Your task to perform on an android device: Show me popular videos on Youtube Image 0: 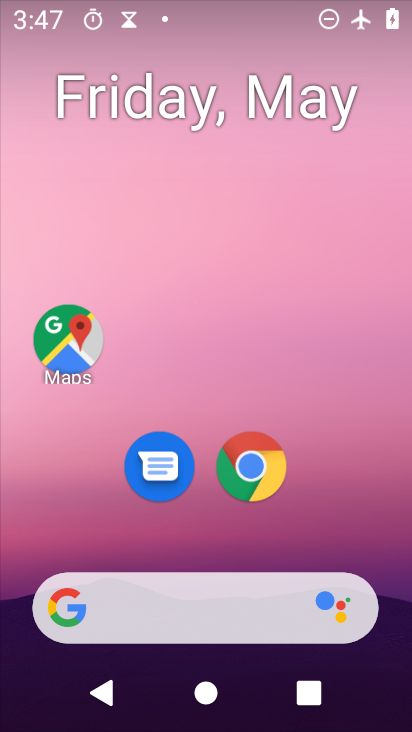
Step 0: drag from (348, 537) to (305, 14)
Your task to perform on an android device: Show me popular videos on Youtube Image 1: 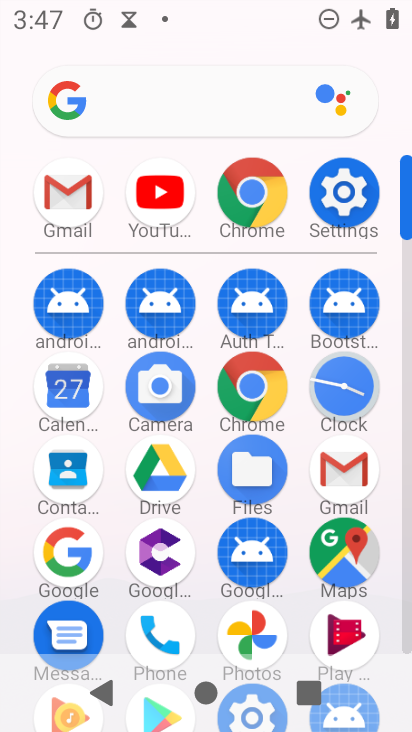
Step 1: click (147, 200)
Your task to perform on an android device: Show me popular videos on Youtube Image 2: 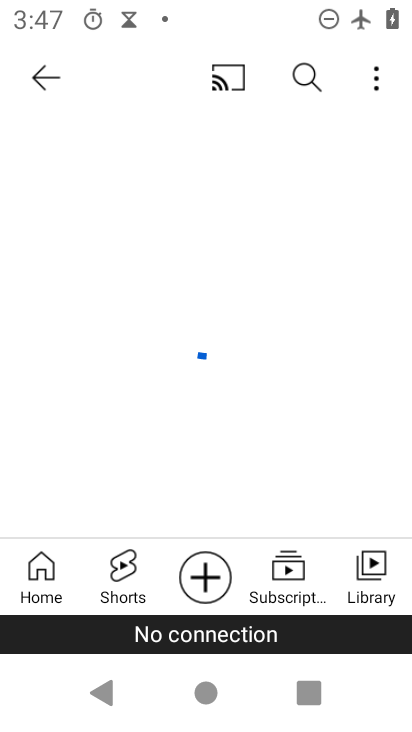
Step 2: click (305, 74)
Your task to perform on an android device: Show me popular videos on Youtube Image 3: 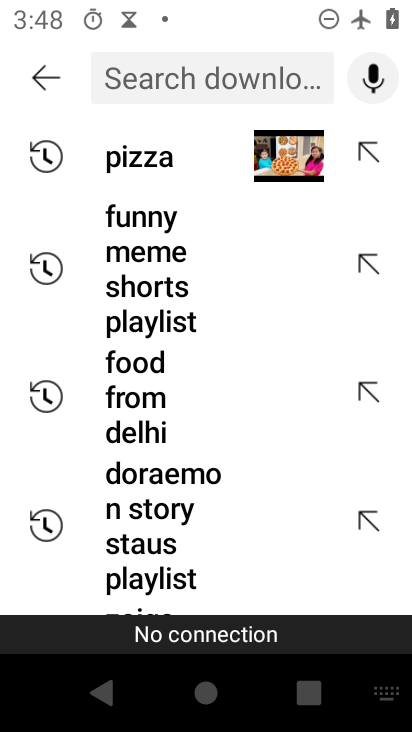
Step 3: type "popular vidoes"
Your task to perform on an android device: Show me popular videos on Youtube Image 4: 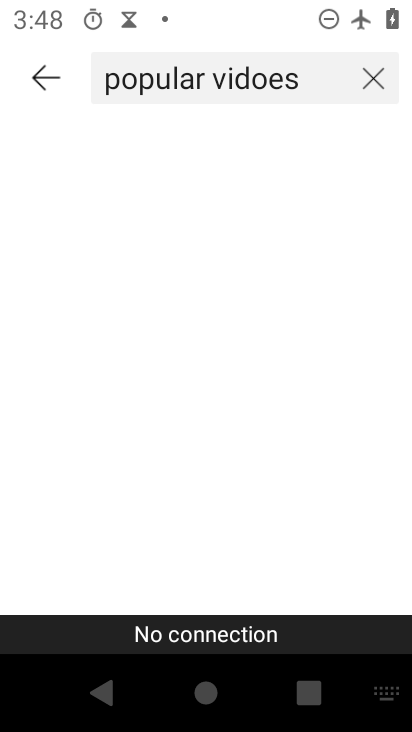
Step 4: press enter
Your task to perform on an android device: Show me popular videos on Youtube Image 5: 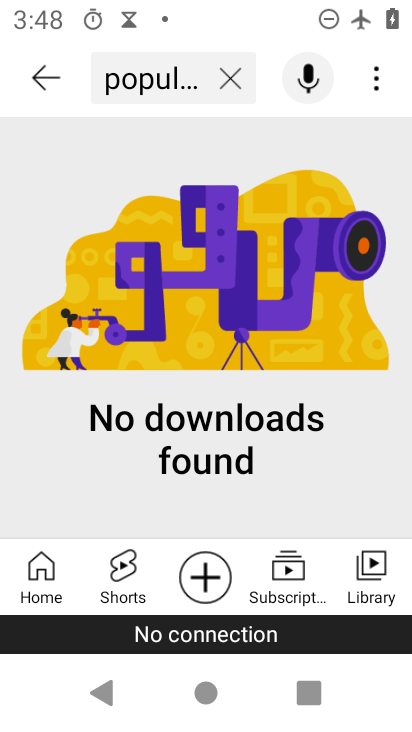
Step 5: task complete